Your task to perform on an android device: toggle airplane mode Image 0: 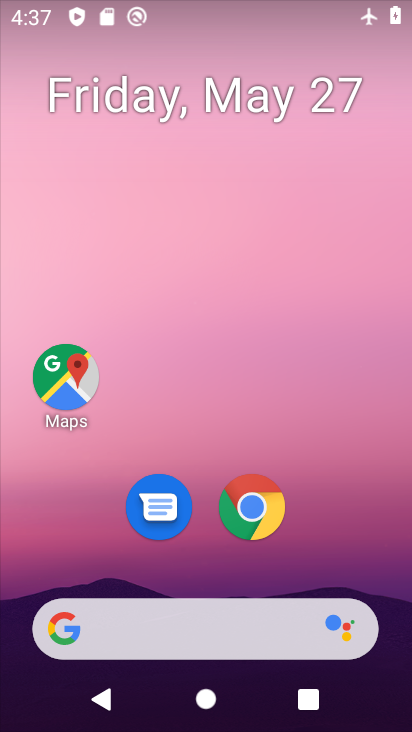
Step 0: drag from (341, 519) to (293, 115)
Your task to perform on an android device: toggle airplane mode Image 1: 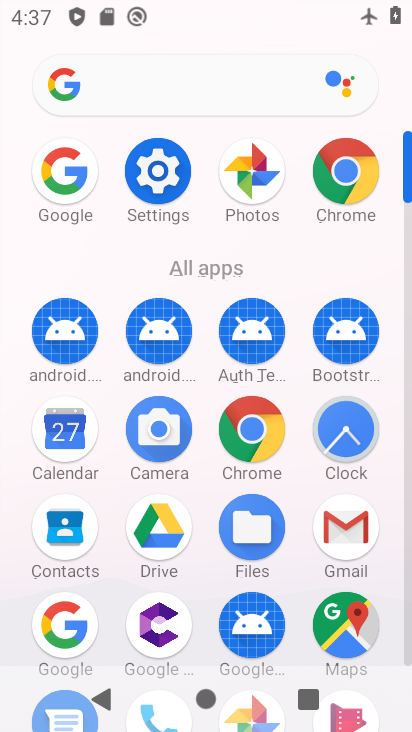
Step 1: click (158, 167)
Your task to perform on an android device: toggle airplane mode Image 2: 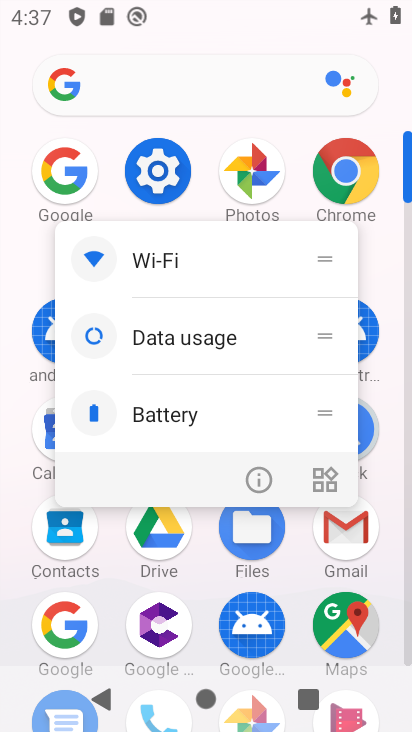
Step 2: click (158, 167)
Your task to perform on an android device: toggle airplane mode Image 3: 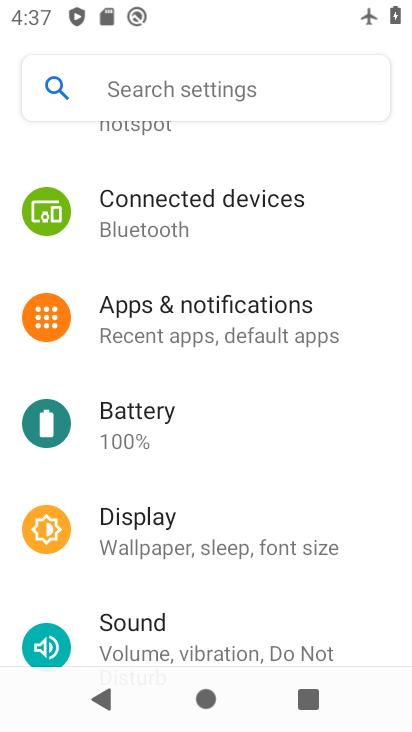
Step 3: drag from (189, 157) to (172, 281)
Your task to perform on an android device: toggle airplane mode Image 4: 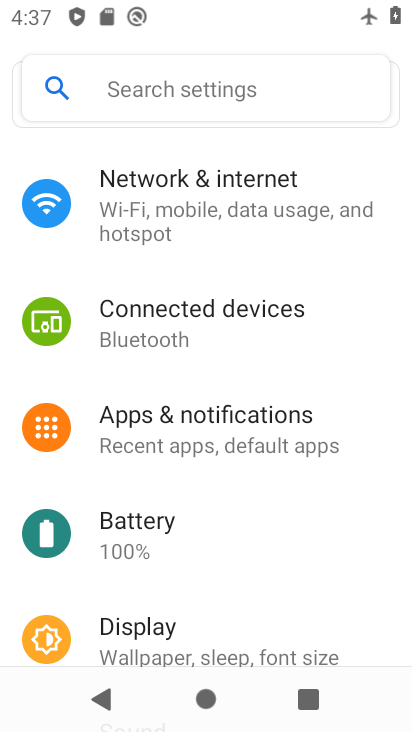
Step 4: click (215, 192)
Your task to perform on an android device: toggle airplane mode Image 5: 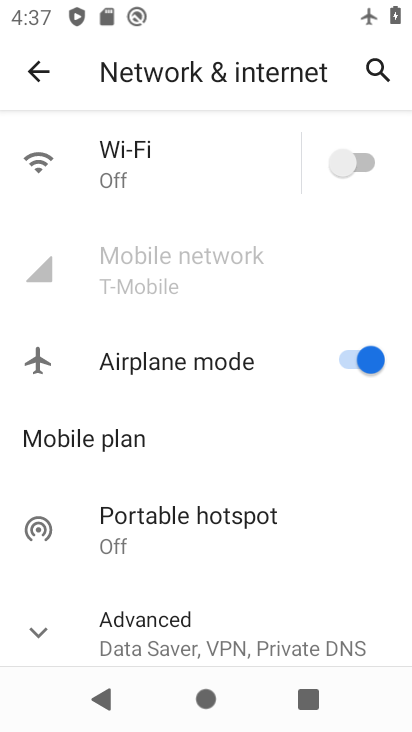
Step 5: click (342, 364)
Your task to perform on an android device: toggle airplane mode Image 6: 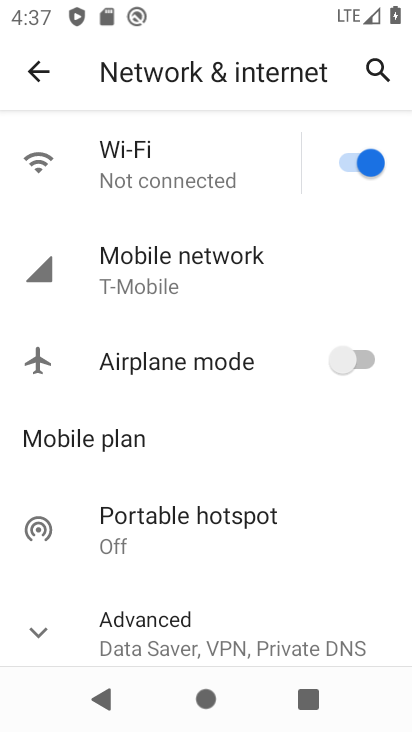
Step 6: task complete